Your task to perform on an android device: turn off location Image 0: 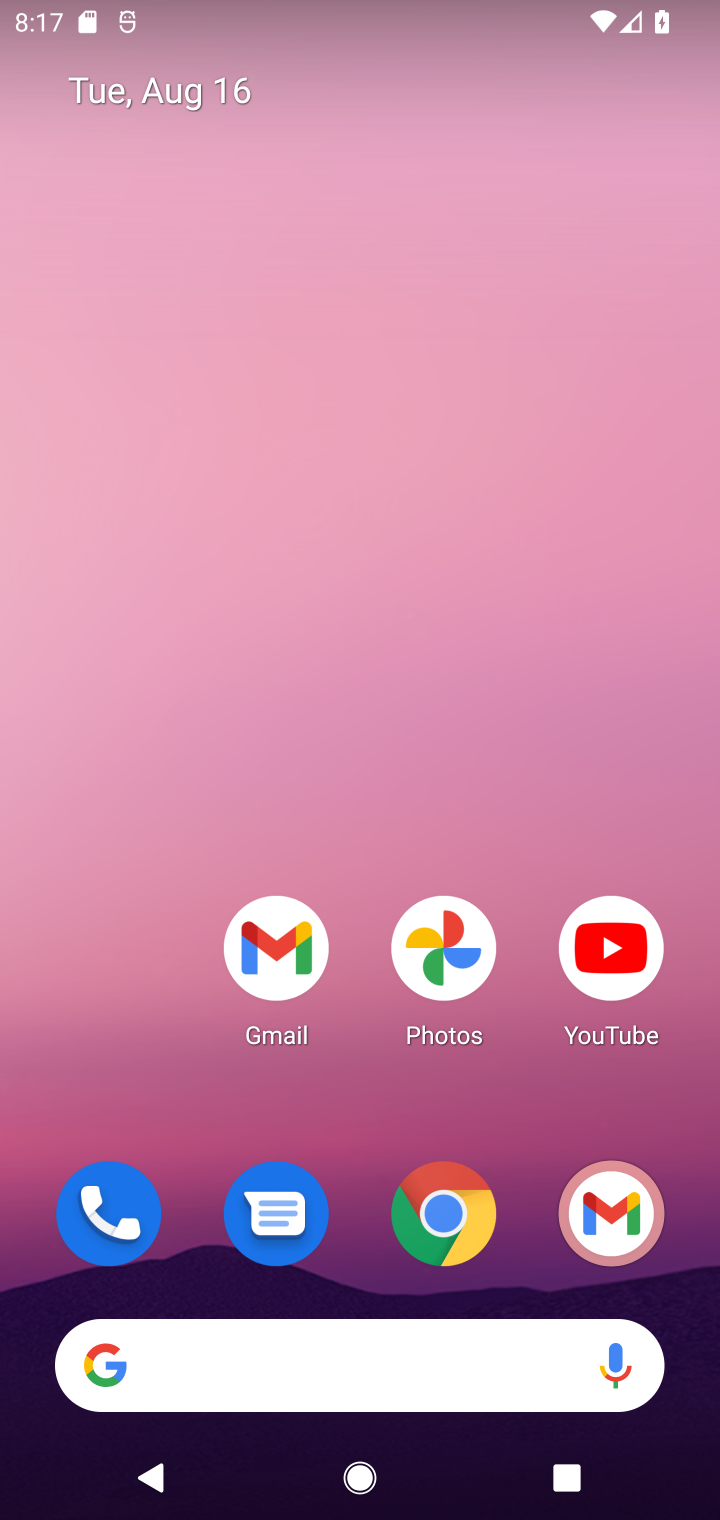
Step 0: drag from (319, 1221) to (442, 52)
Your task to perform on an android device: turn off location Image 1: 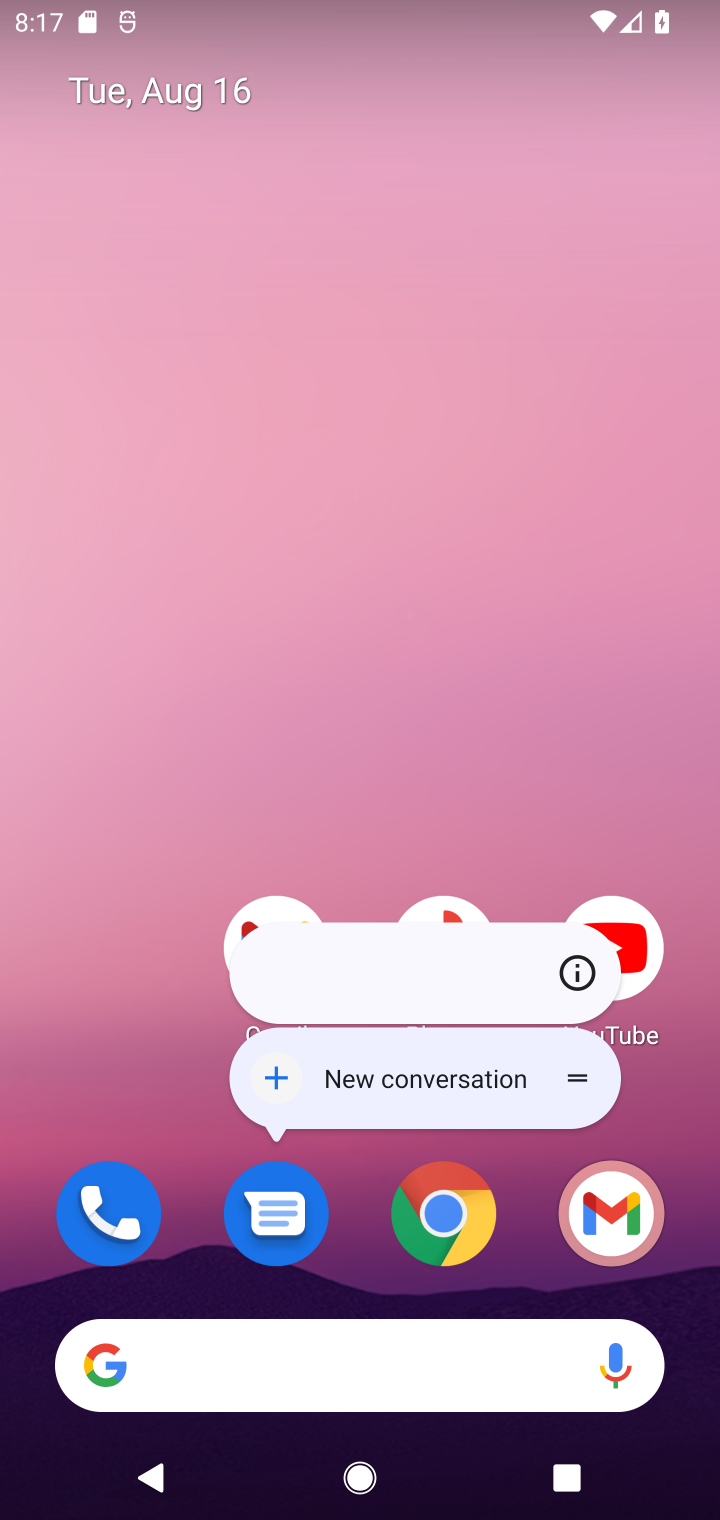
Step 1: click (120, 990)
Your task to perform on an android device: turn off location Image 2: 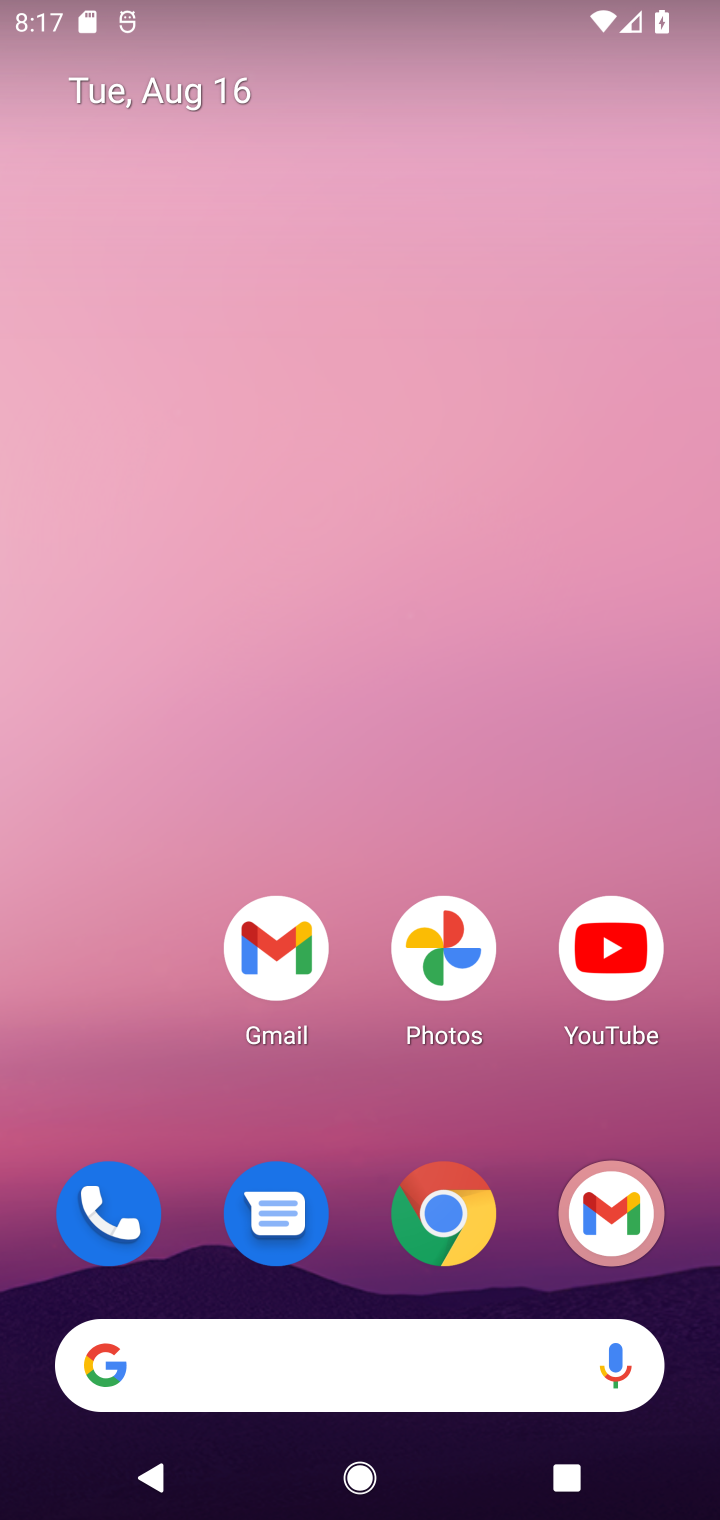
Step 2: drag from (346, 1238) to (378, 266)
Your task to perform on an android device: turn off location Image 3: 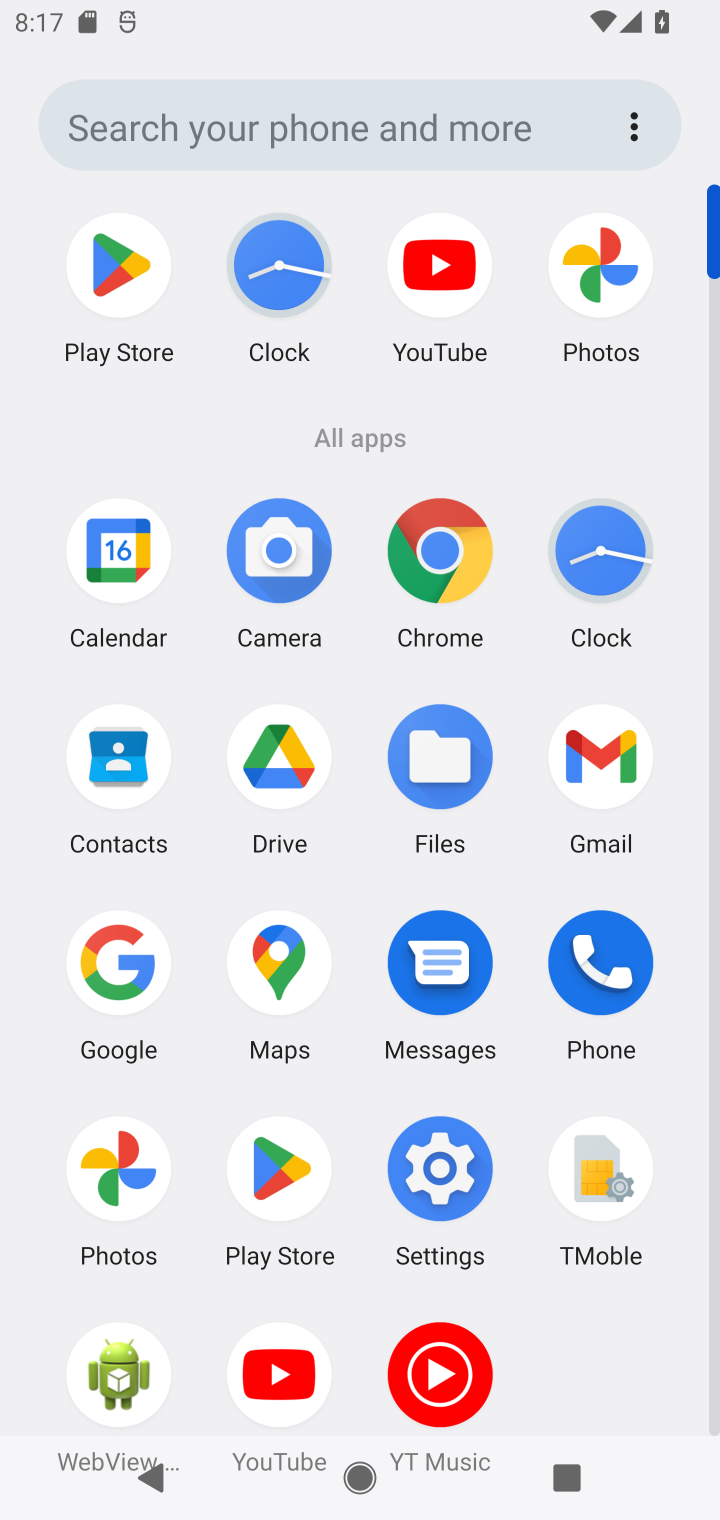
Step 3: click (437, 1160)
Your task to perform on an android device: turn off location Image 4: 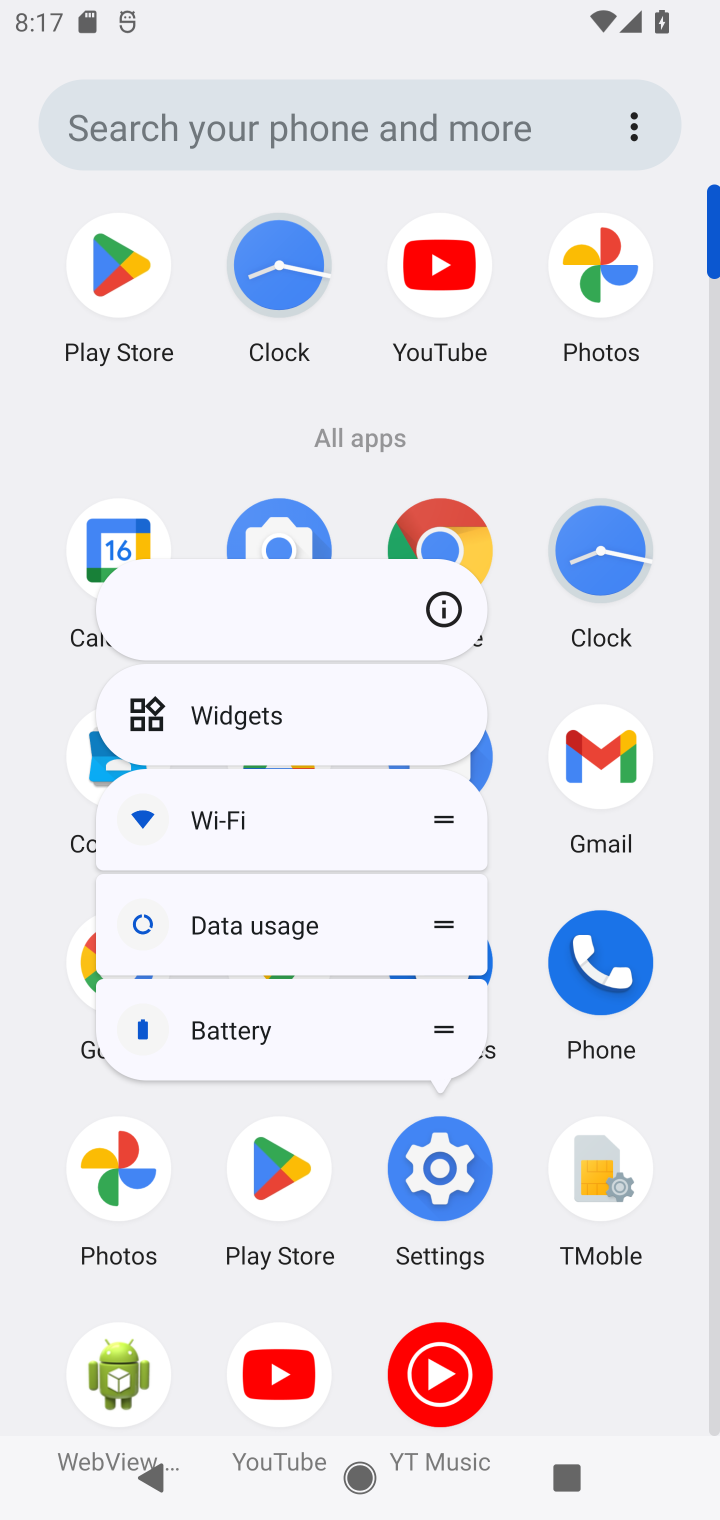
Step 4: click (447, 1150)
Your task to perform on an android device: turn off location Image 5: 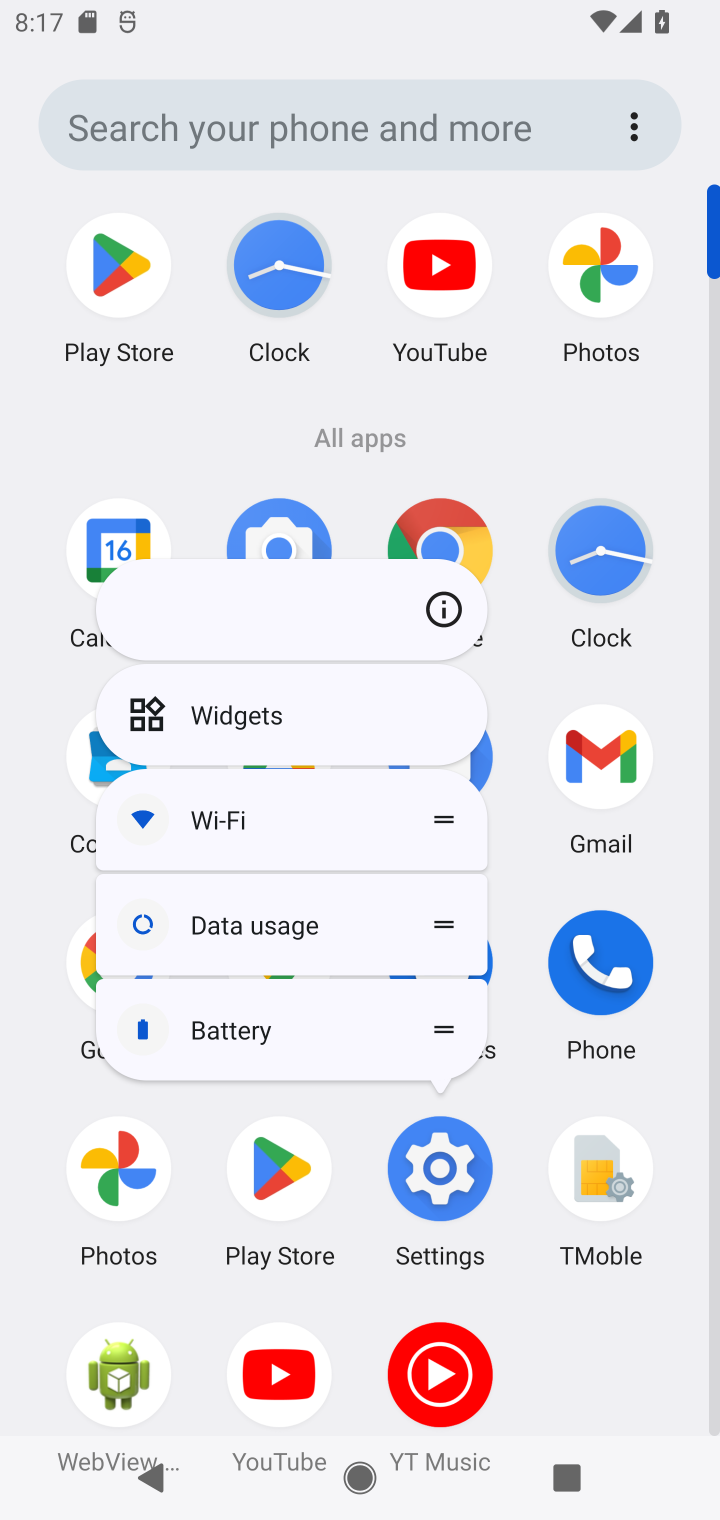
Step 5: click (447, 1150)
Your task to perform on an android device: turn off location Image 6: 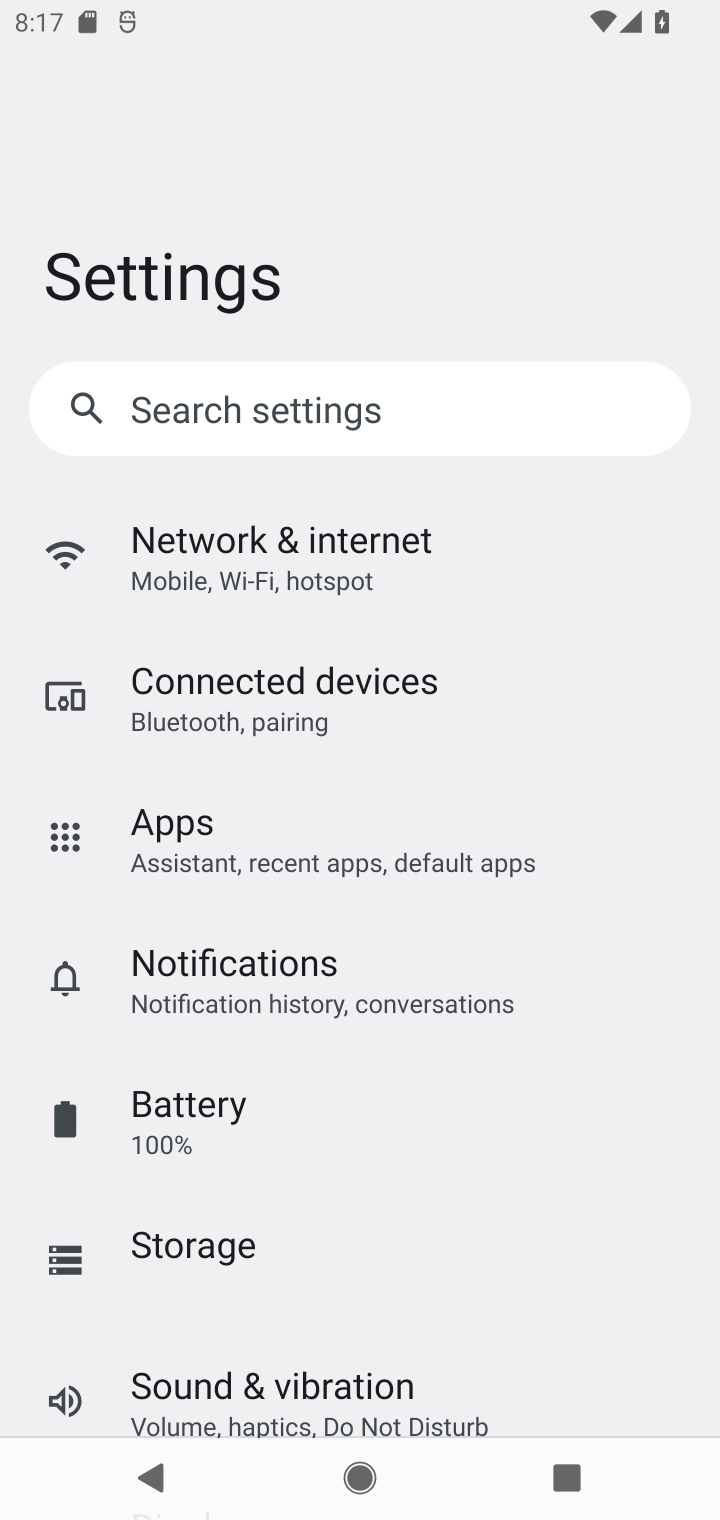
Step 6: drag from (359, 1238) to (498, 378)
Your task to perform on an android device: turn off location Image 7: 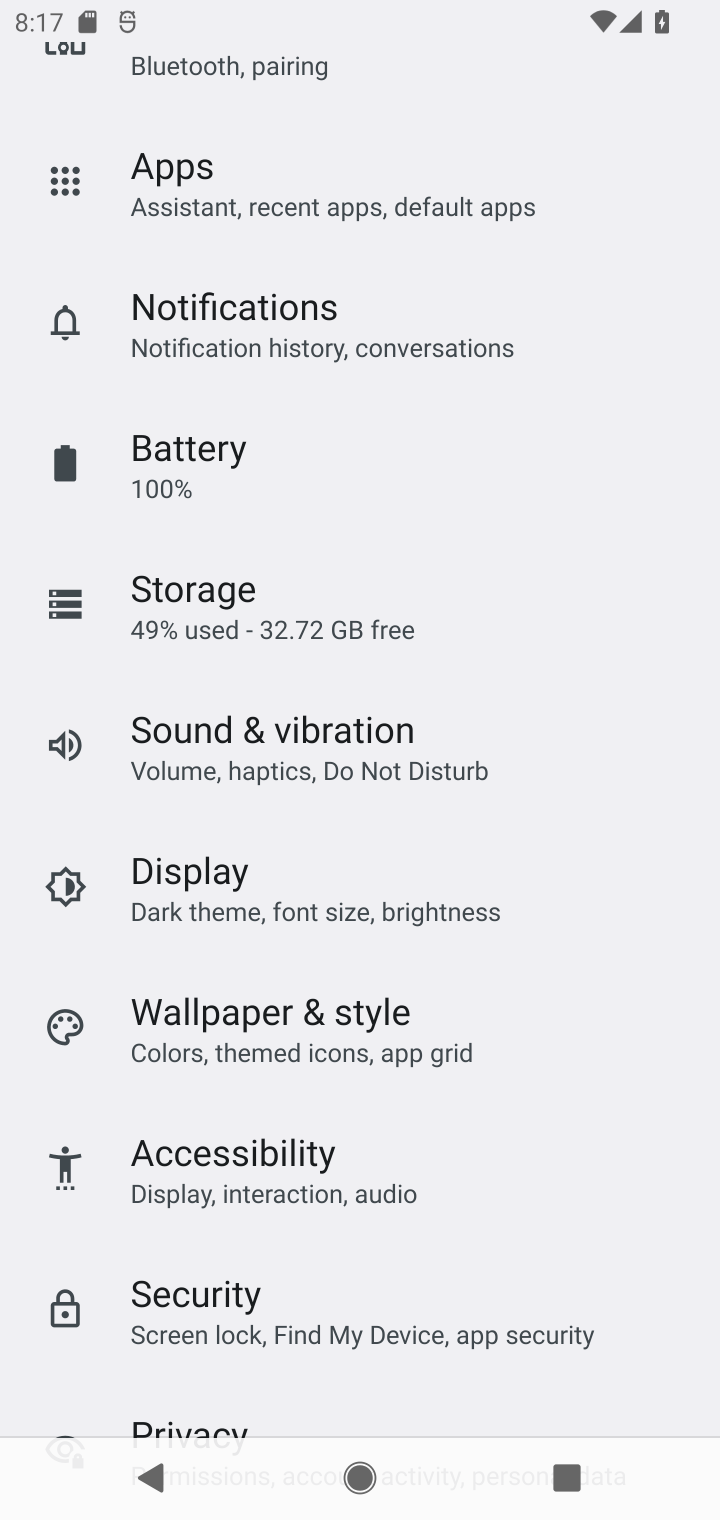
Step 7: drag from (243, 1133) to (397, 258)
Your task to perform on an android device: turn off location Image 8: 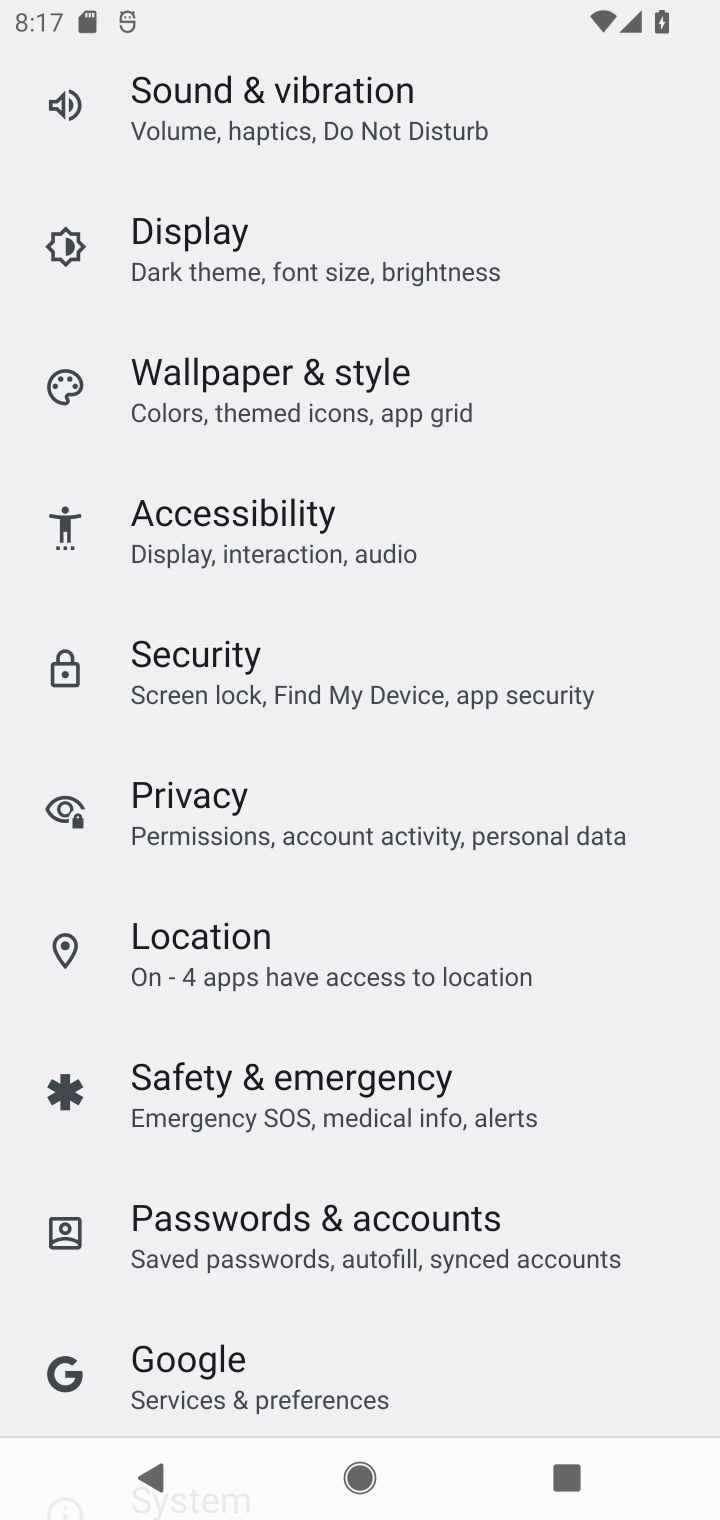
Step 8: click (244, 952)
Your task to perform on an android device: turn off location Image 9: 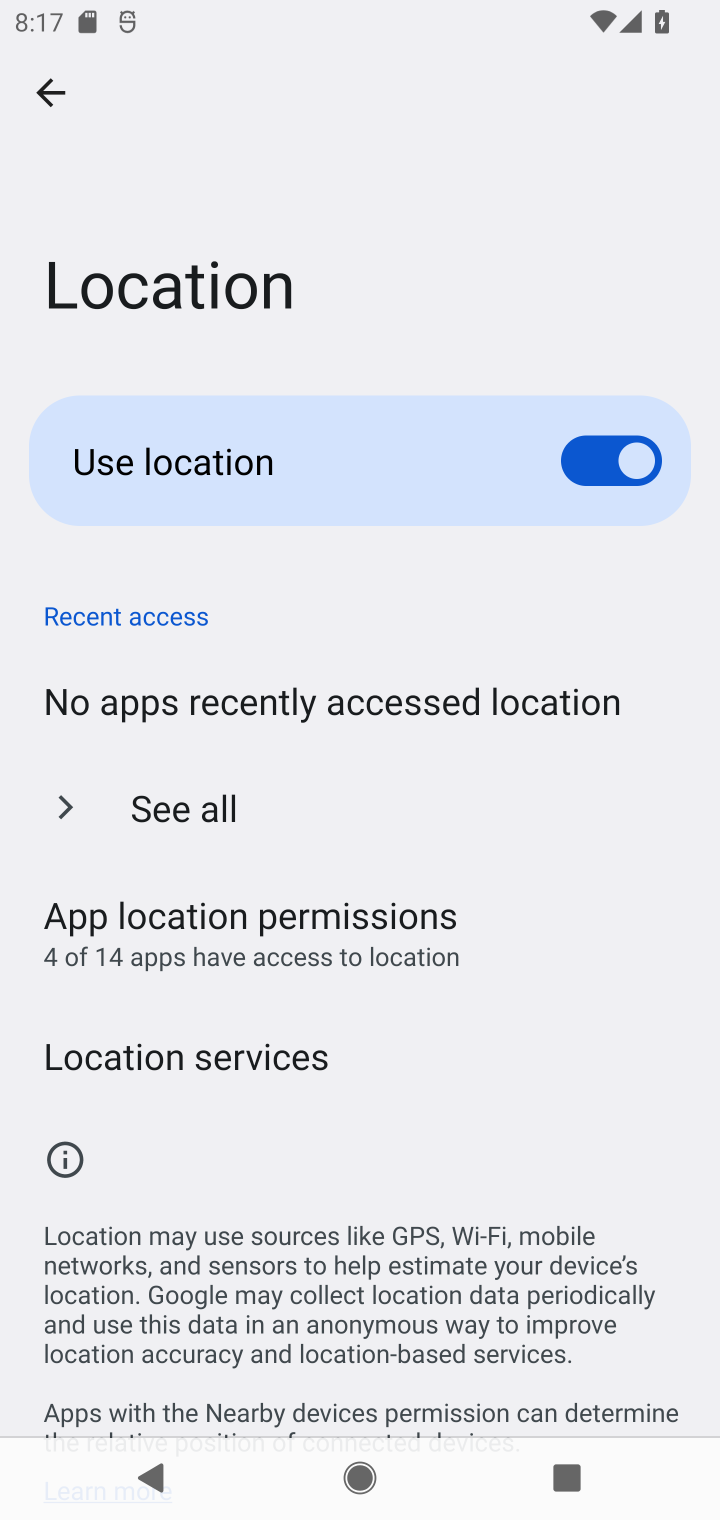
Step 9: click (601, 440)
Your task to perform on an android device: turn off location Image 10: 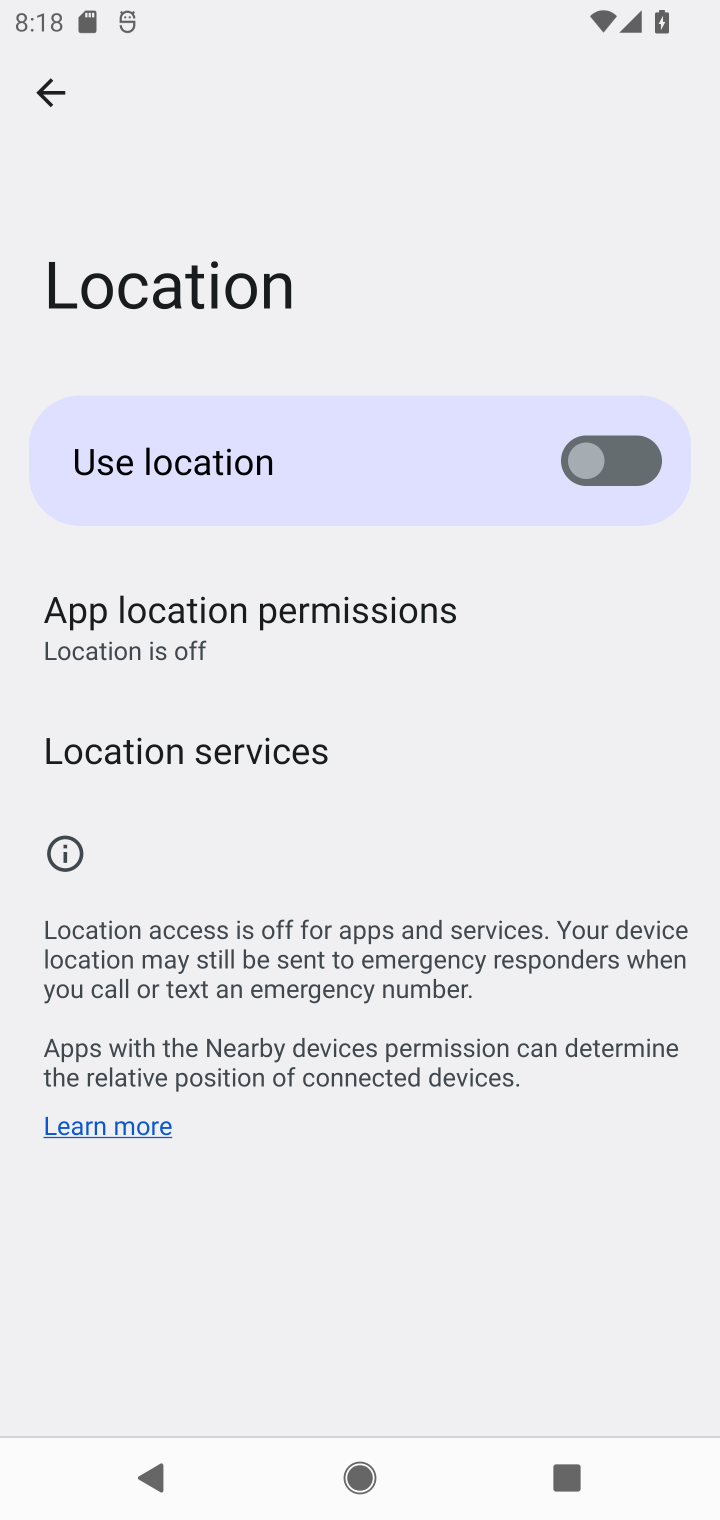
Step 10: task complete